Your task to perform on an android device: Search for vegetarian restaurants on Maps Image 0: 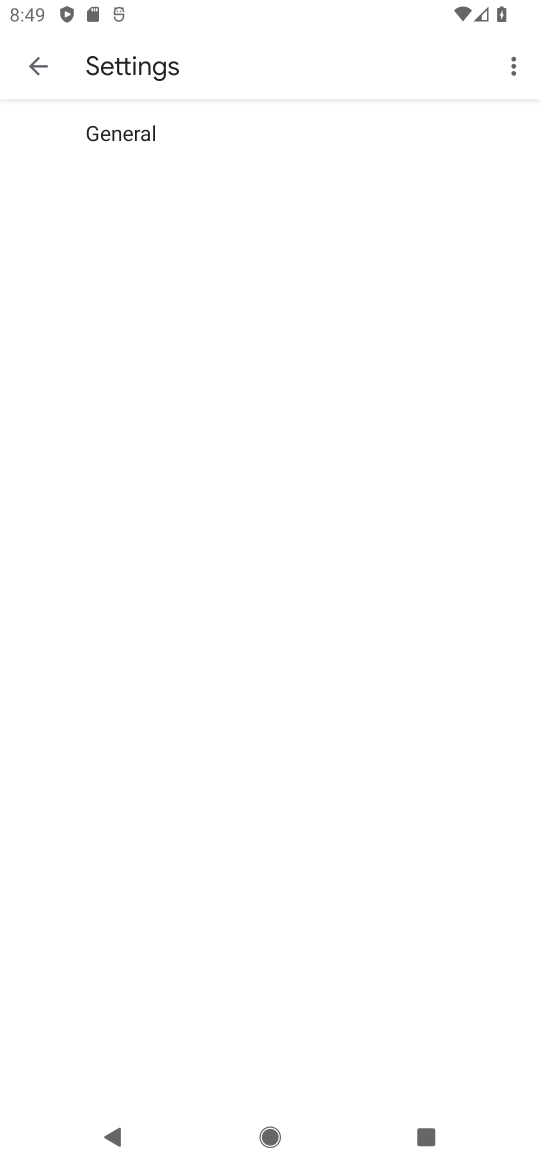
Step 0: press back button
Your task to perform on an android device: Search for vegetarian restaurants on Maps Image 1: 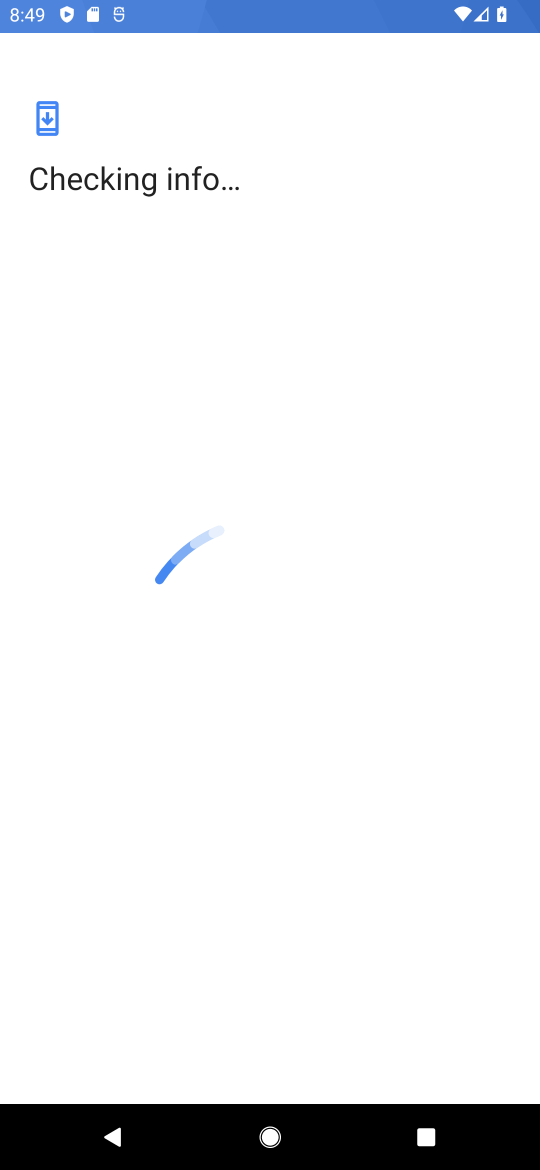
Step 1: press back button
Your task to perform on an android device: Search for vegetarian restaurants on Maps Image 2: 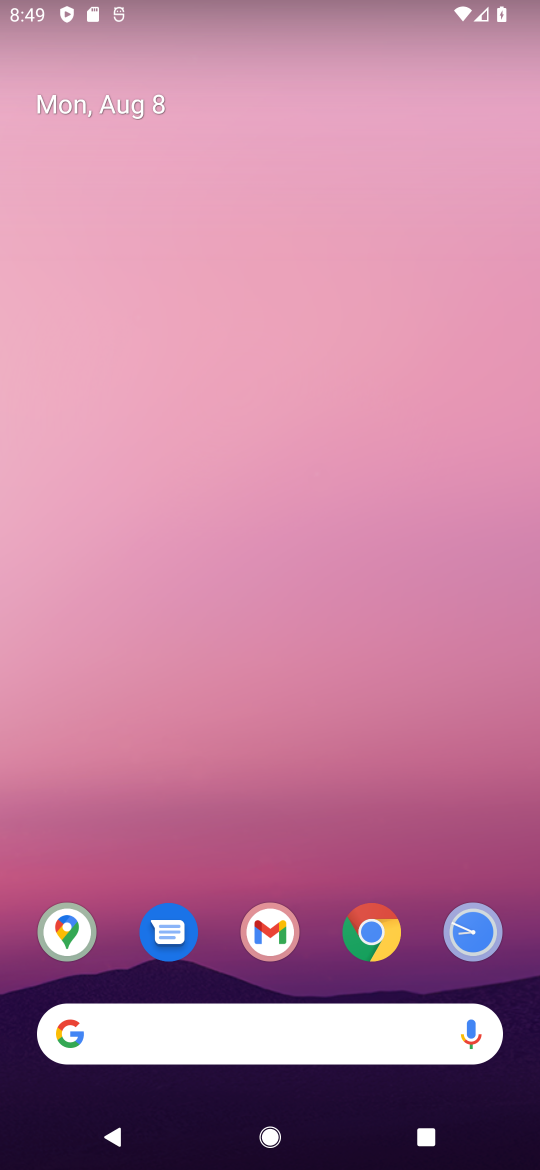
Step 2: press back button
Your task to perform on an android device: Search for vegetarian restaurants on Maps Image 3: 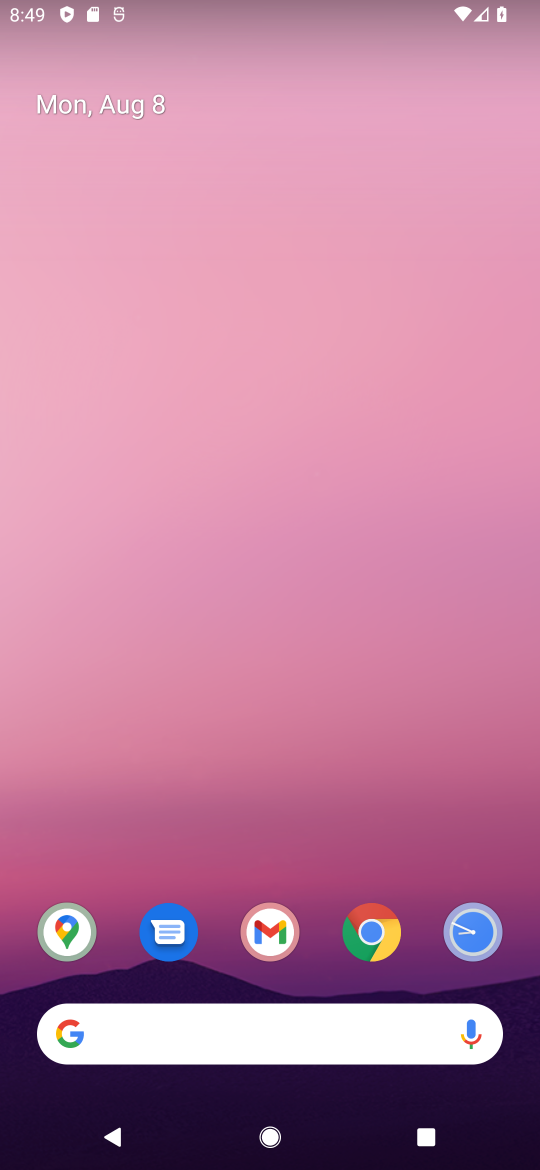
Step 3: drag from (229, 980) to (331, 9)
Your task to perform on an android device: Search for vegetarian restaurants on Maps Image 4: 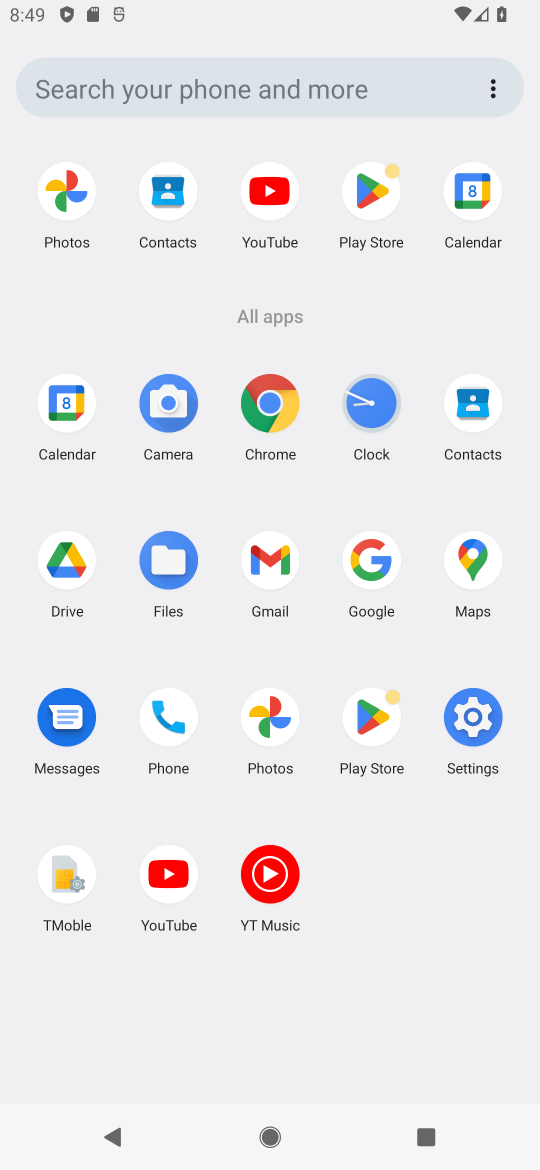
Step 4: click (487, 549)
Your task to perform on an android device: Search for vegetarian restaurants on Maps Image 5: 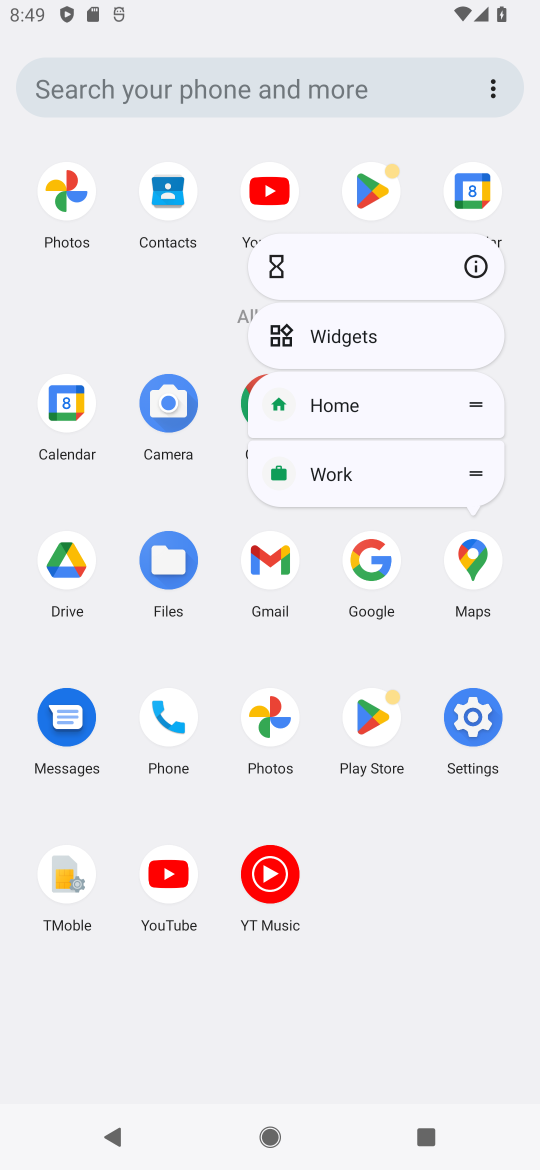
Step 5: click (475, 553)
Your task to perform on an android device: Search for vegetarian restaurants on Maps Image 6: 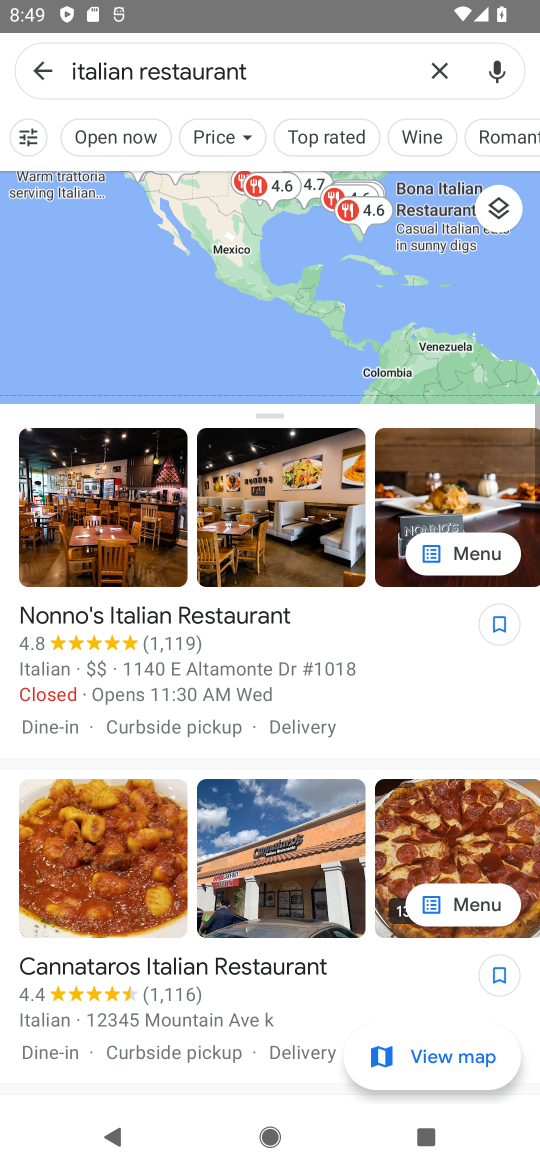
Step 6: click (452, 69)
Your task to perform on an android device: Search for vegetarian restaurants on Maps Image 7: 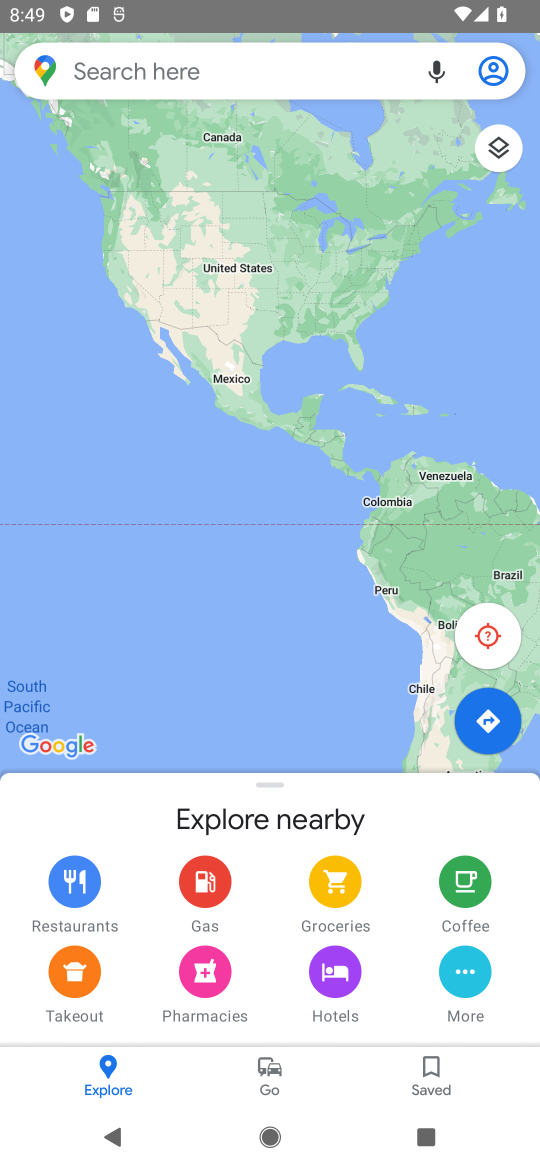
Step 7: click (277, 56)
Your task to perform on an android device: Search for vegetarian restaurants on Maps Image 8: 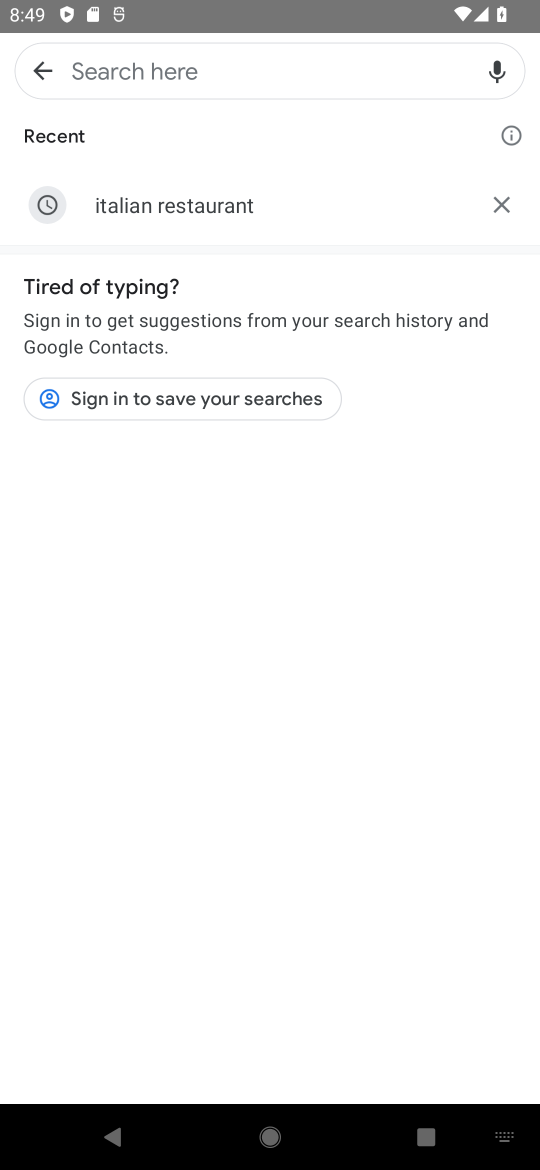
Step 8: type "vegetarian"
Your task to perform on an android device: Search for vegetarian restaurants on Maps Image 9: 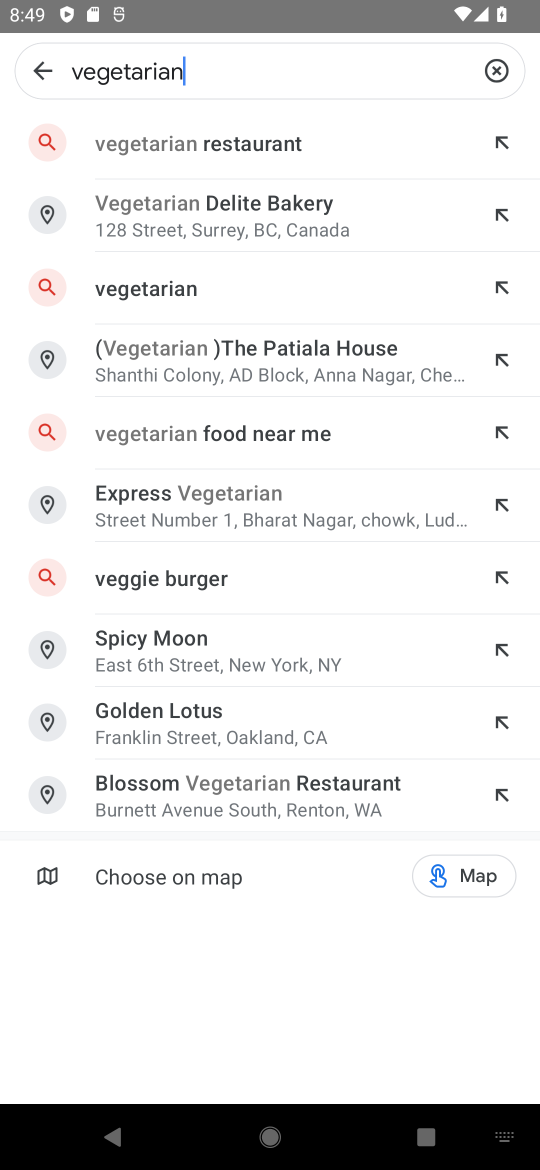
Step 9: click (130, 149)
Your task to perform on an android device: Search for vegetarian restaurants on Maps Image 10: 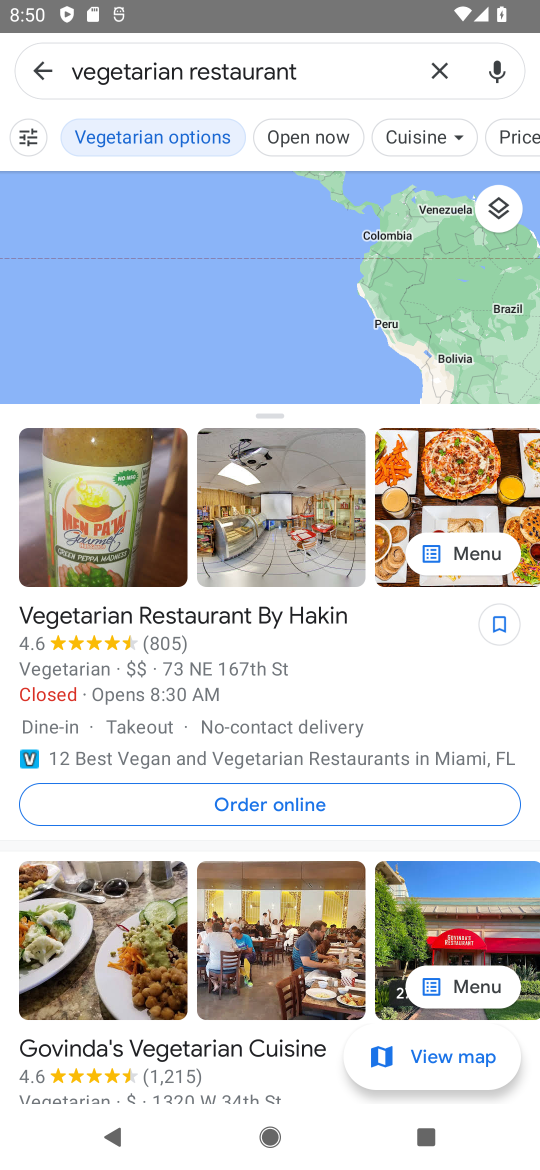
Step 10: task complete